Your task to perform on an android device: Open the calendar app, open the side menu, and click the "Day" option Image 0: 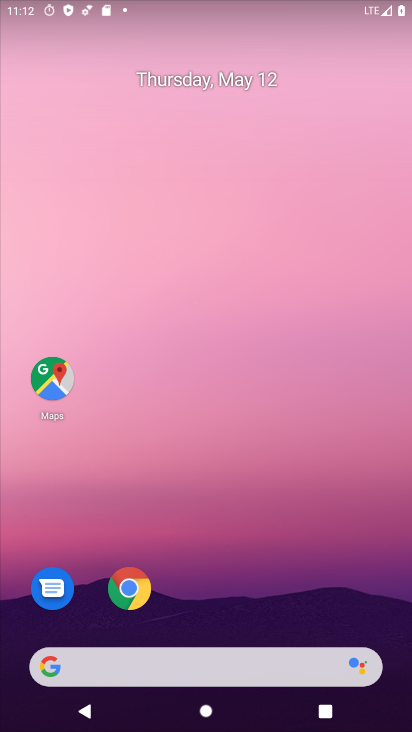
Step 0: drag from (259, 549) to (279, 74)
Your task to perform on an android device: Open the calendar app, open the side menu, and click the "Day" option Image 1: 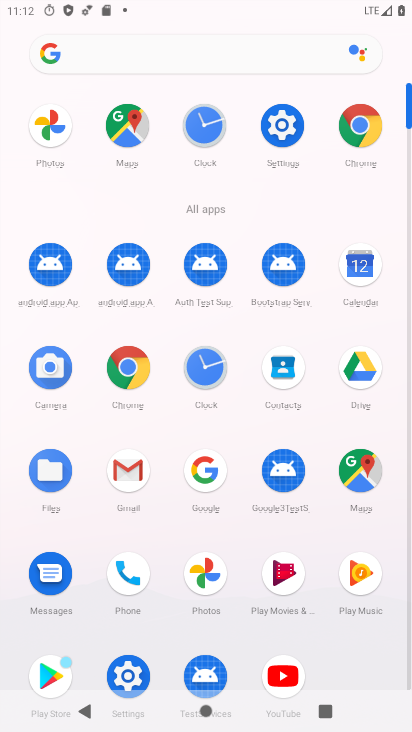
Step 1: click (354, 270)
Your task to perform on an android device: Open the calendar app, open the side menu, and click the "Day" option Image 2: 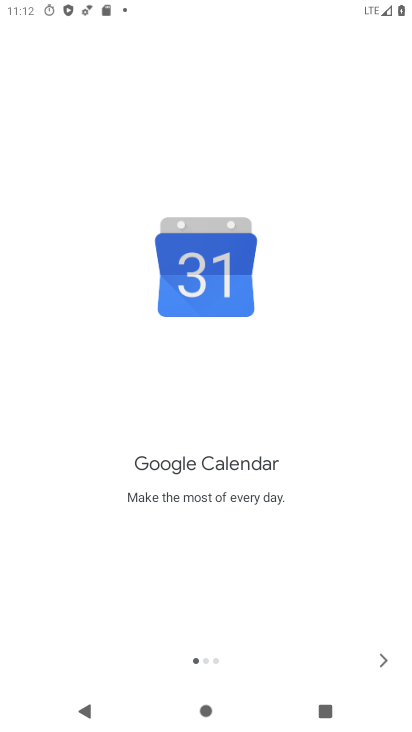
Step 2: click (388, 654)
Your task to perform on an android device: Open the calendar app, open the side menu, and click the "Day" option Image 3: 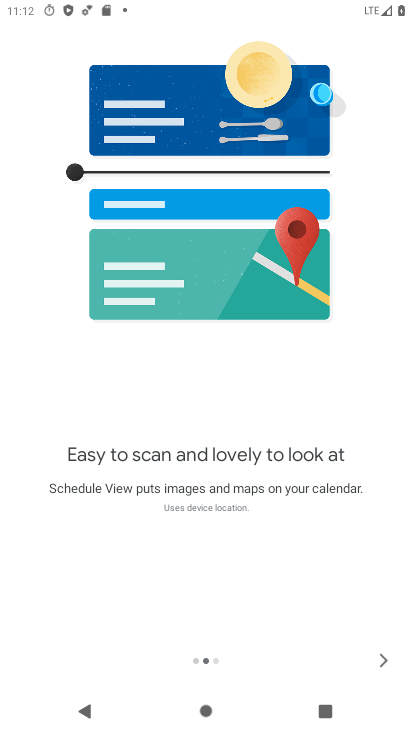
Step 3: click (387, 654)
Your task to perform on an android device: Open the calendar app, open the side menu, and click the "Day" option Image 4: 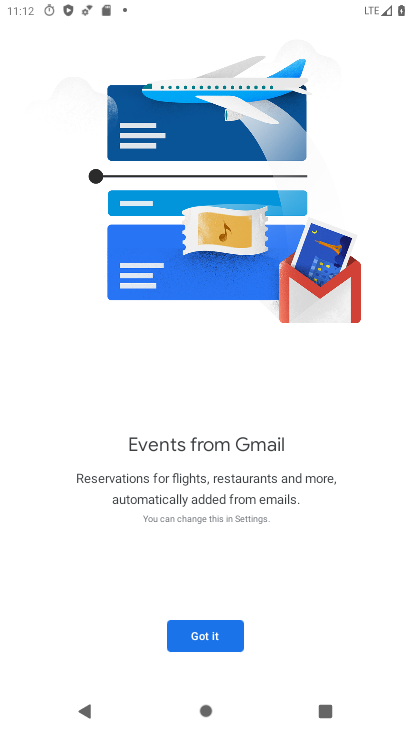
Step 4: click (202, 643)
Your task to perform on an android device: Open the calendar app, open the side menu, and click the "Day" option Image 5: 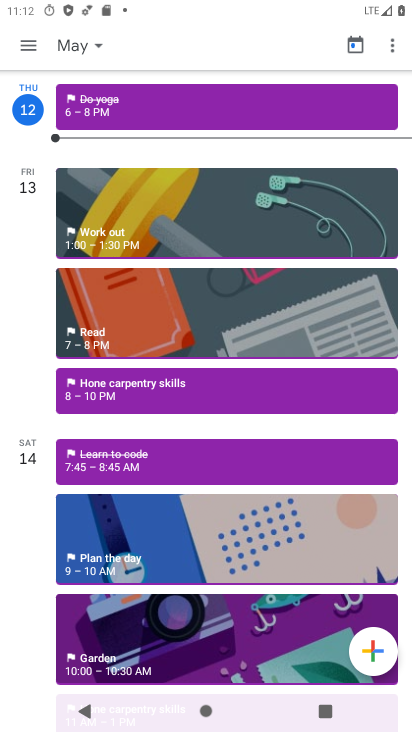
Step 5: click (27, 37)
Your task to perform on an android device: Open the calendar app, open the side menu, and click the "Day" option Image 6: 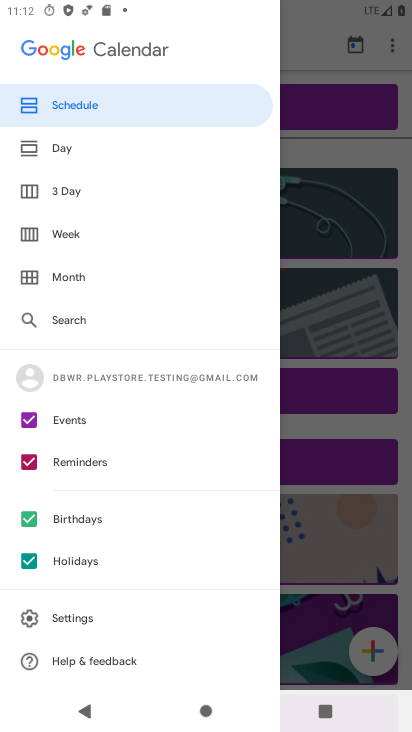
Step 6: click (94, 144)
Your task to perform on an android device: Open the calendar app, open the side menu, and click the "Day" option Image 7: 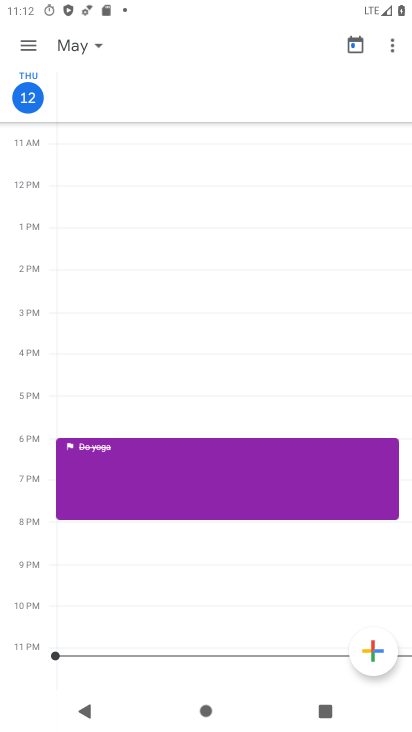
Step 7: task complete